Your task to perform on an android device: set the timer Image 0: 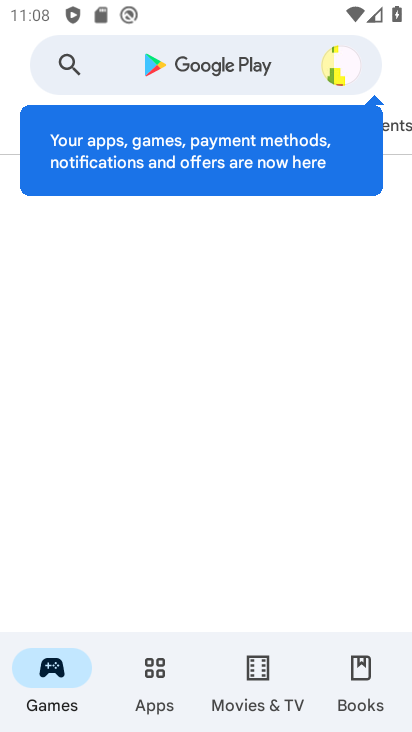
Step 0: press home button
Your task to perform on an android device: set the timer Image 1: 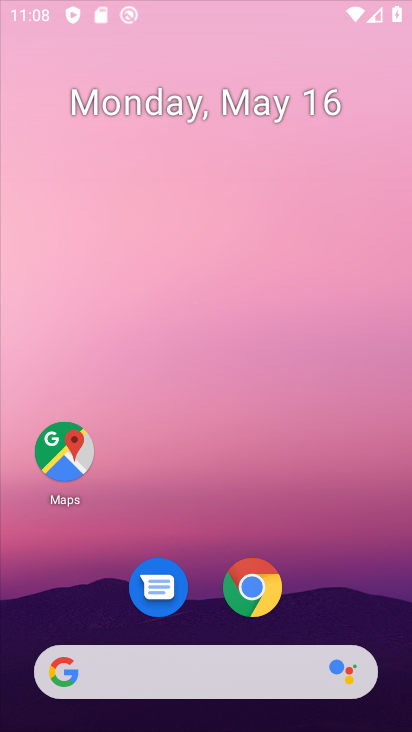
Step 1: drag from (395, 650) to (34, 9)
Your task to perform on an android device: set the timer Image 2: 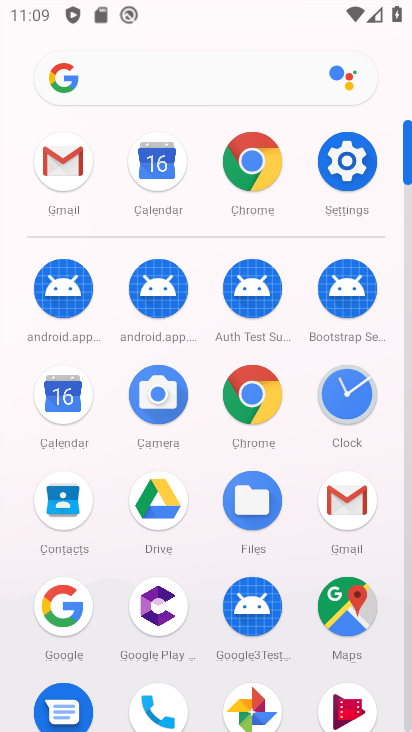
Step 2: click (355, 413)
Your task to perform on an android device: set the timer Image 3: 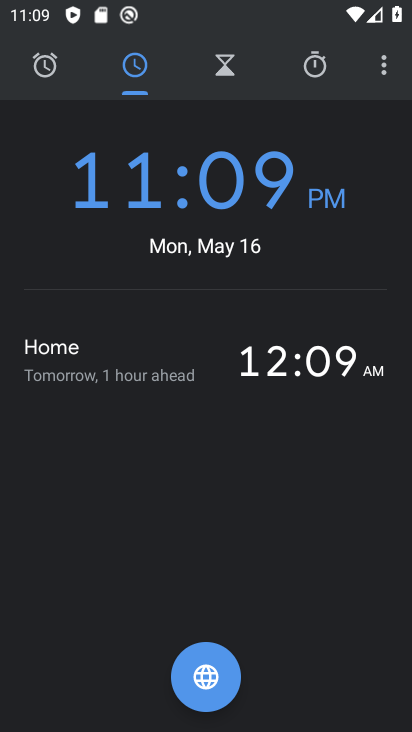
Step 3: click (381, 68)
Your task to perform on an android device: set the timer Image 4: 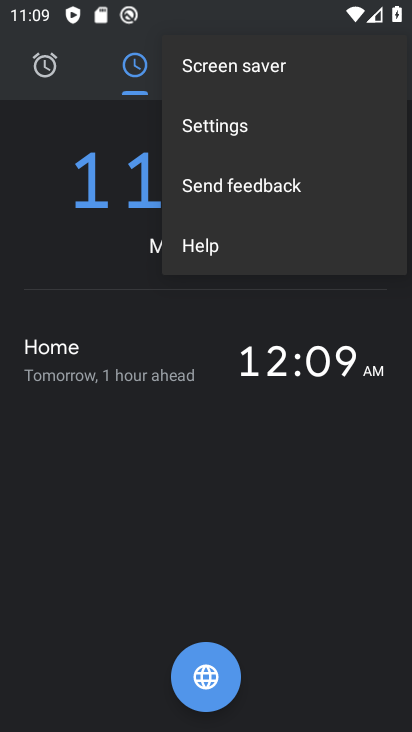
Step 4: click (202, 125)
Your task to perform on an android device: set the timer Image 5: 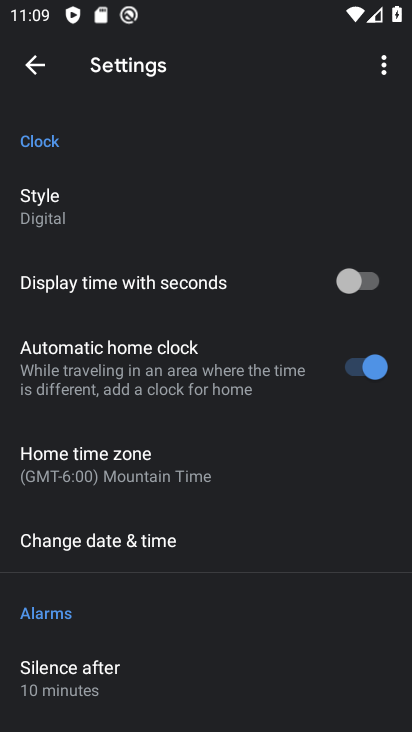
Step 5: click (188, 471)
Your task to perform on an android device: set the timer Image 6: 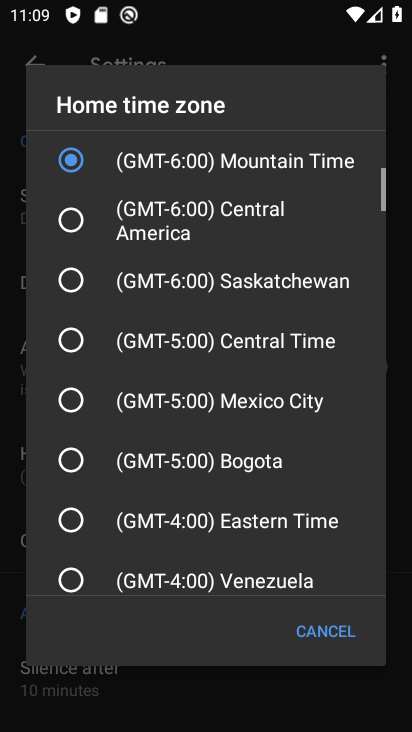
Step 6: click (159, 459)
Your task to perform on an android device: set the timer Image 7: 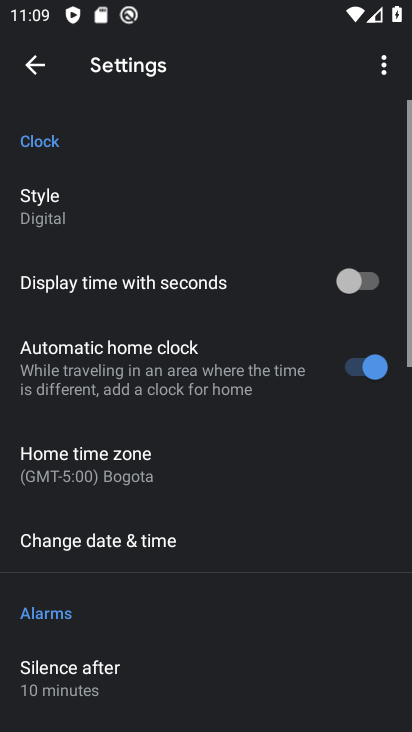
Step 7: task complete